Your task to perform on an android device: Open Youtube and go to the subscriptions tab Image 0: 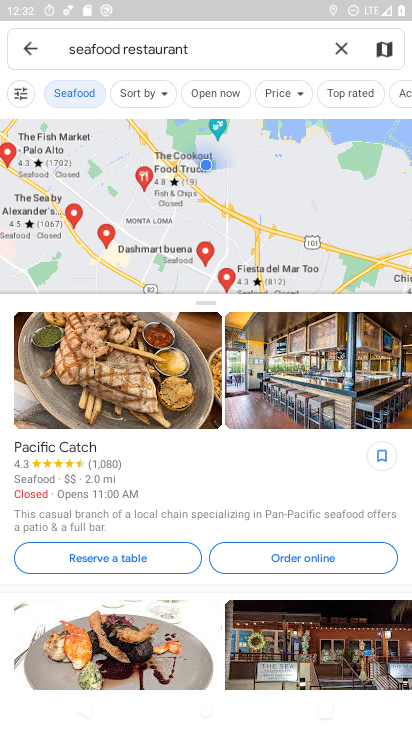
Step 0: press home button
Your task to perform on an android device: Open Youtube and go to the subscriptions tab Image 1: 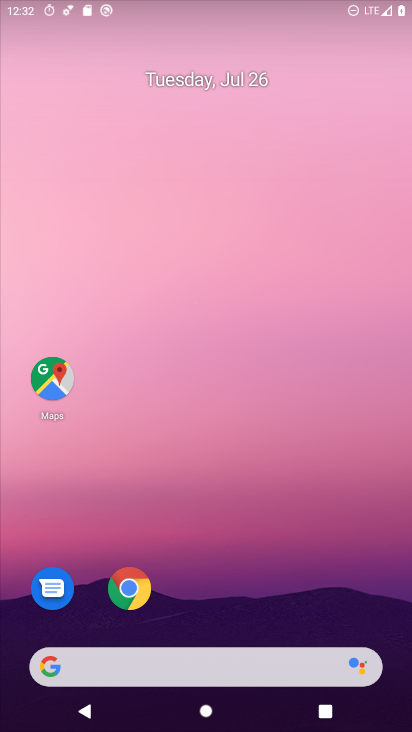
Step 1: drag from (256, 556) to (245, 179)
Your task to perform on an android device: Open Youtube and go to the subscriptions tab Image 2: 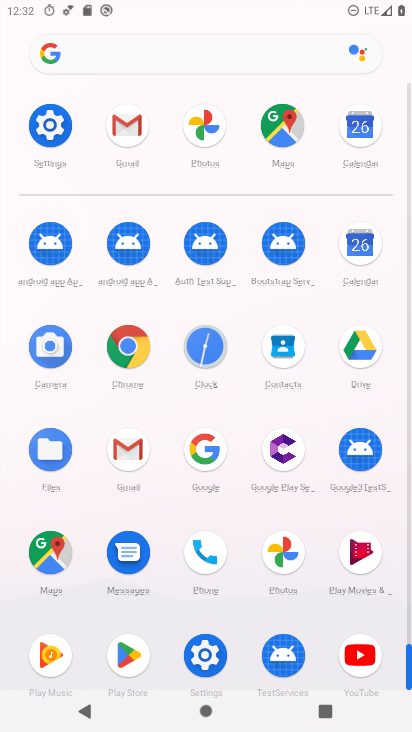
Step 2: click (353, 653)
Your task to perform on an android device: Open Youtube and go to the subscriptions tab Image 3: 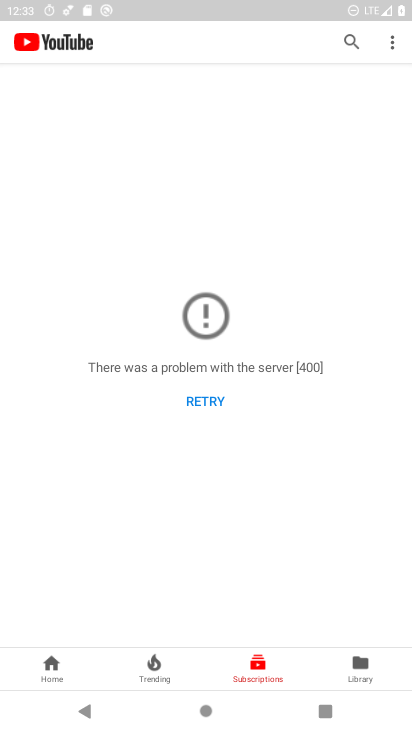
Step 3: task complete